Your task to perform on an android device: What is the news today? Image 0: 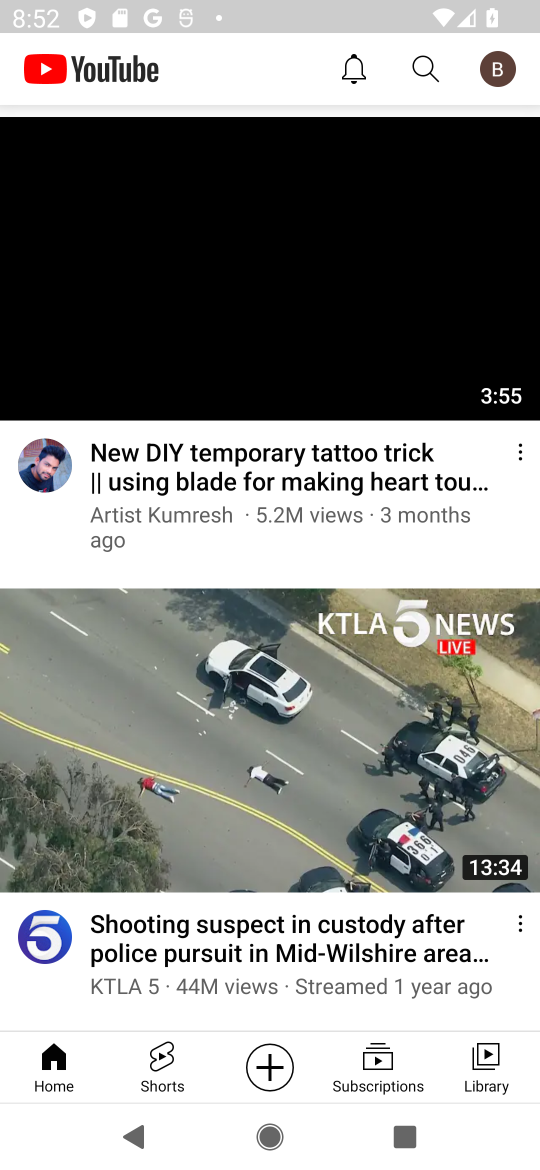
Step 0: press home button
Your task to perform on an android device: What is the news today? Image 1: 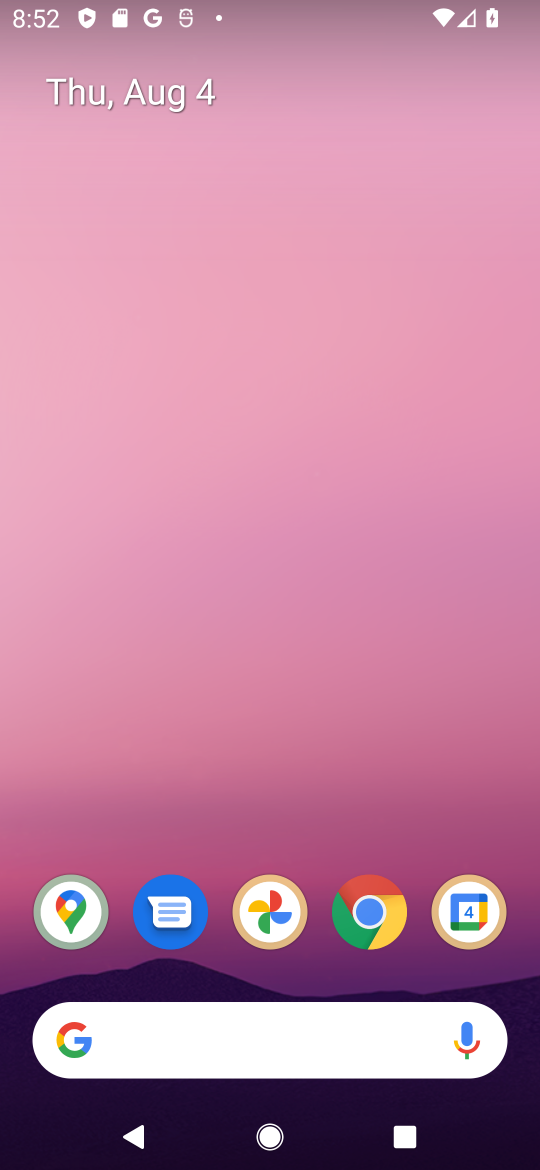
Step 1: click (376, 911)
Your task to perform on an android device: What is the news today? Image 2: 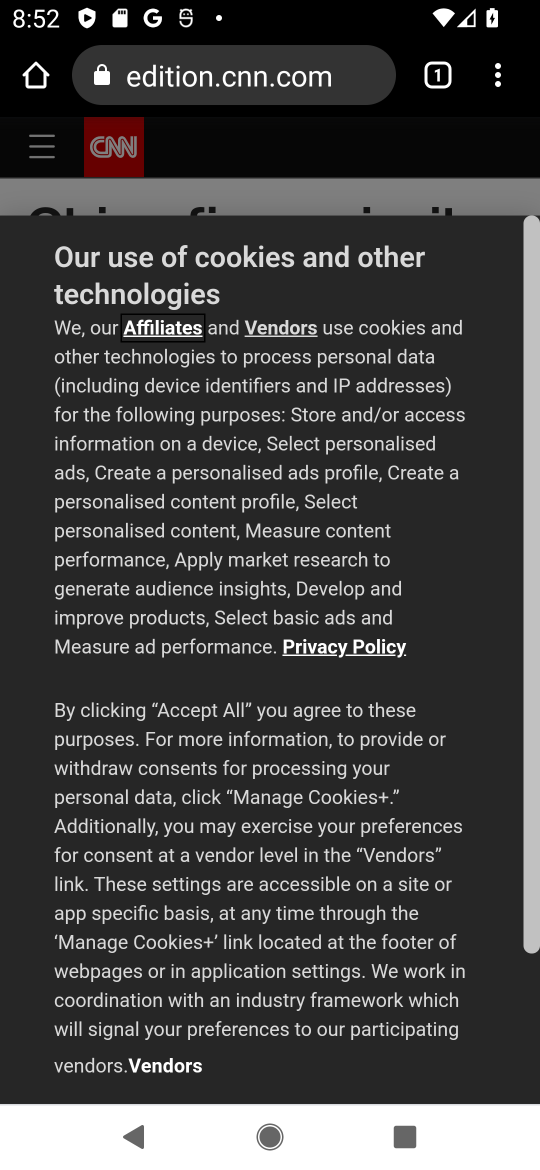
Step 2: click (279, 73)
Your task to perform on an android device: What is the news today? Image 3: 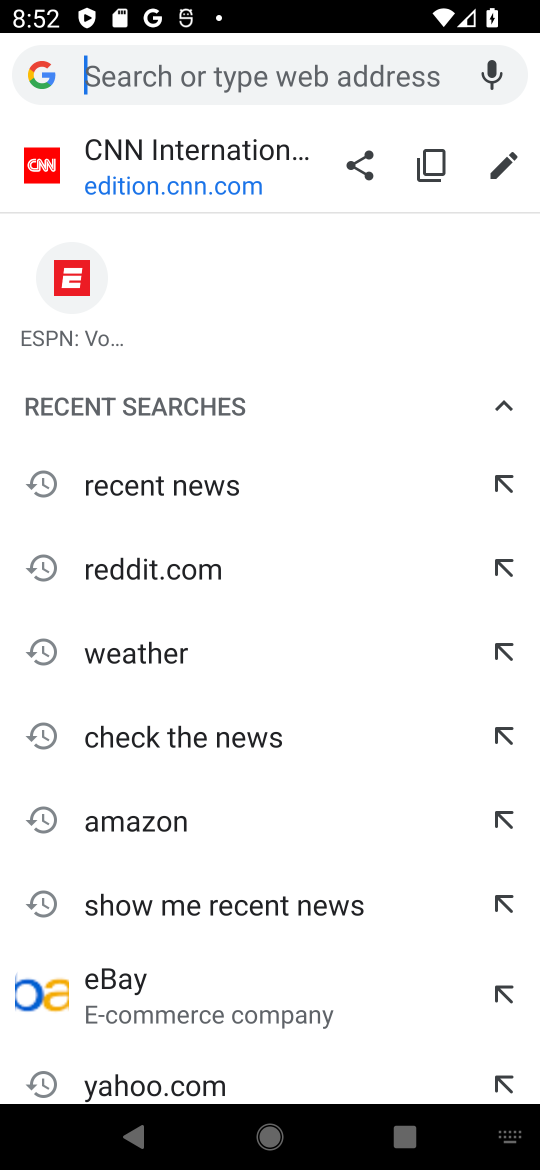
Step 3: type "What is the news today?"
Your task to perform on an android device: What is the news today? Image 4: 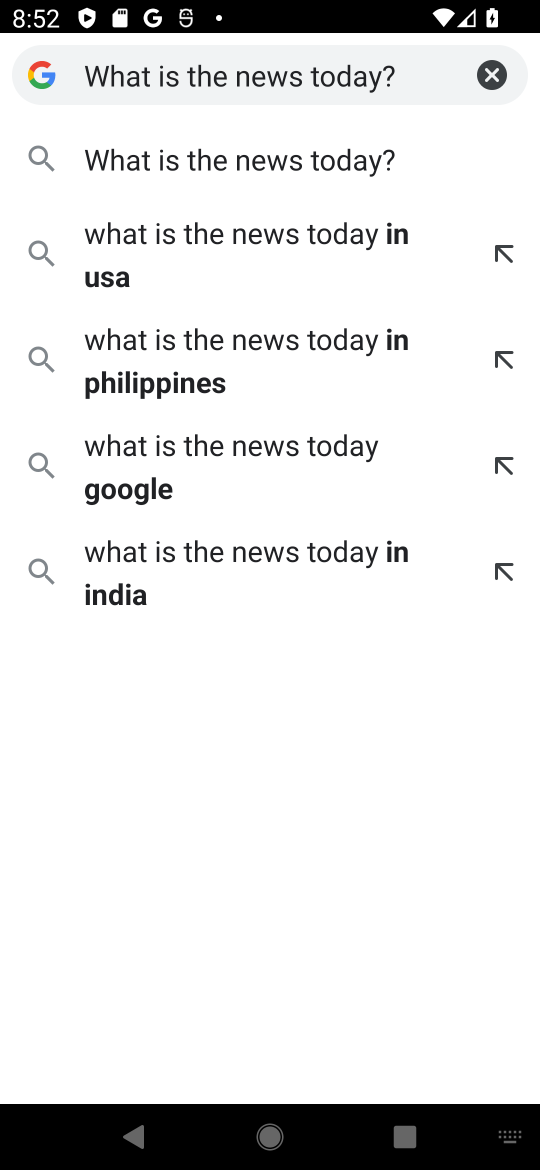
Step 4: click (344, 156)
Your task to perform on an android device: What is the news today? Image 5: 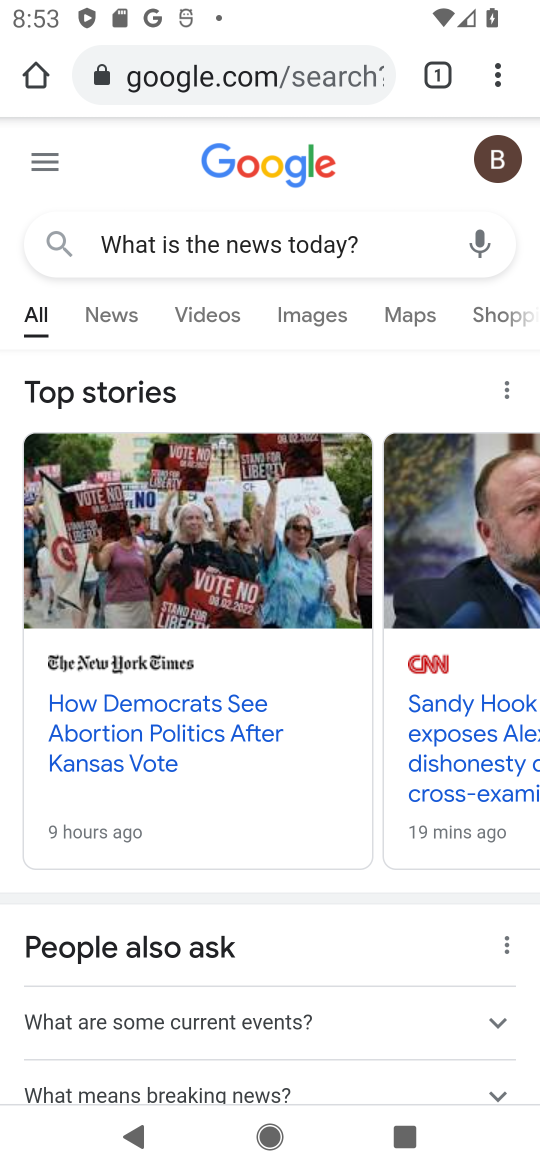
Step 5: task complete